Your task to perform on an android device: turn on the 12-hour format for clock Image 0: 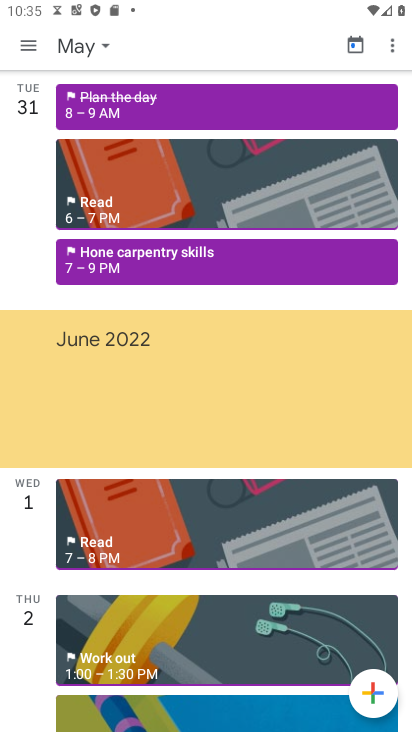
Step 0: press home button
Your task to perform on an android device: turn on the 12-hour format for clock Image 1: 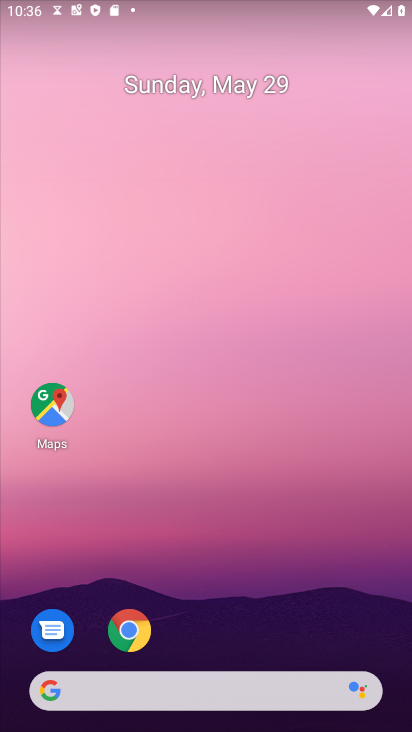
Step 1: drag from (212, 654) to (285, 185)
Your task to perform on an android device: turn on the 12-hour format for clock Image 2: 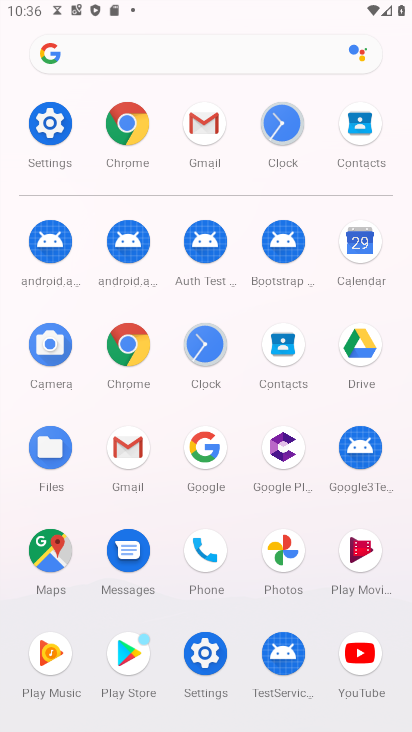
Step 2: click (282, 137)
Your task to perform on an android device: turn on the 12-hour format for clock Image 3: 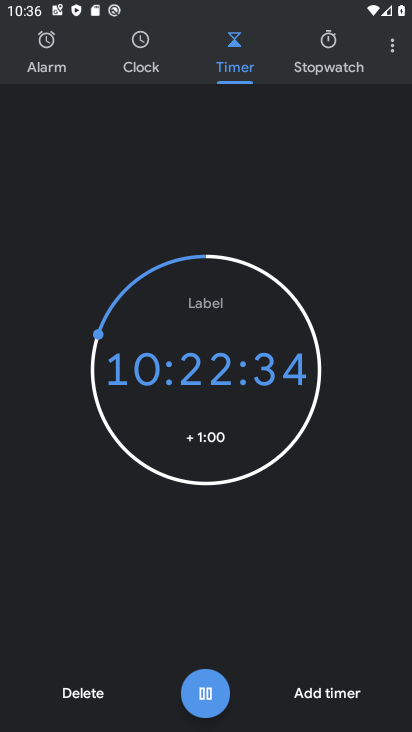
Step 3: click (392, 55)
Your task to perform on an android device: turn on the 12-hour format for clock Image 4: 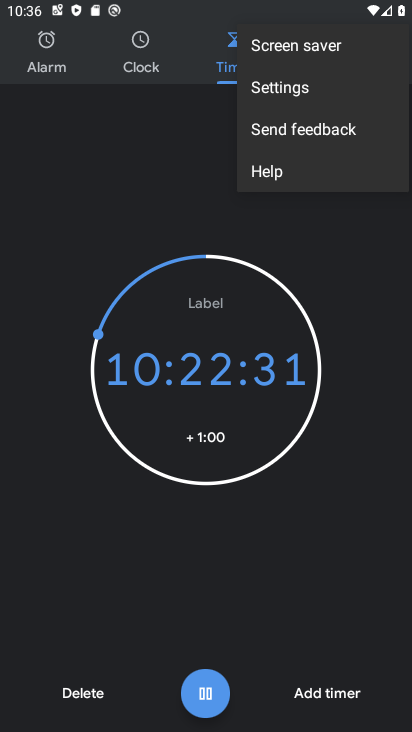
Step 4: click (298, 99)
Your task to perform on an android device: turn on the 12-hour format for clock Image 5: 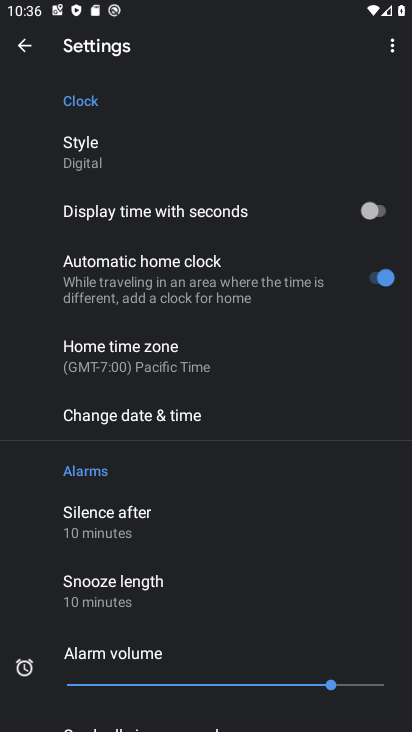
Step 5: drag from (178, 540) to (181, 404)
Your task to perform on an android device: turn on the 12-hour format for clock Image 6: 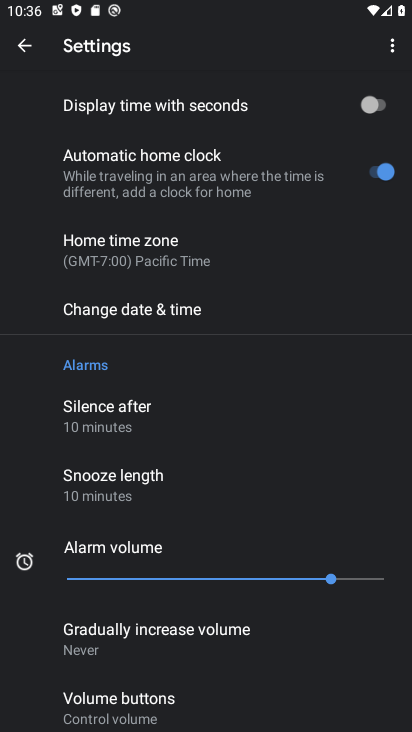
Step 6: click (192, 308)
Your task to perform on an android device: turn on the 12-hour format for clock Image 7: 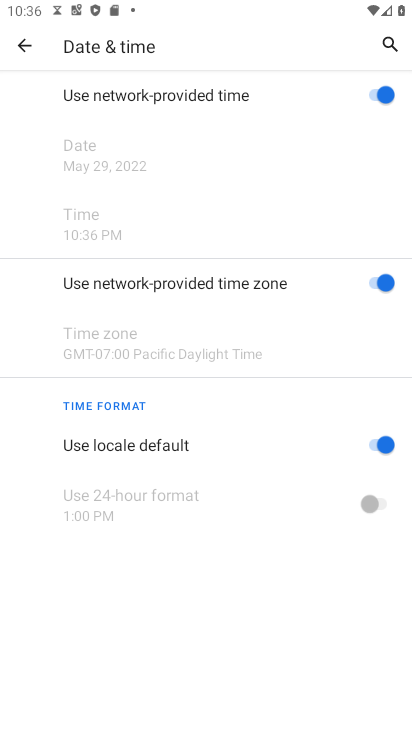
Step 7: task complete